Your task to perform on an android device: find which apps use the phone's location Image 0: 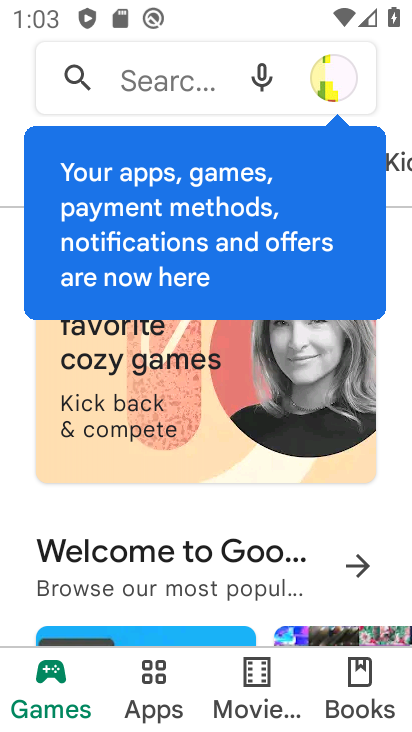
Step 0: press home button
Your task to perform on an android device: find which apps use the phone's location Image 1: 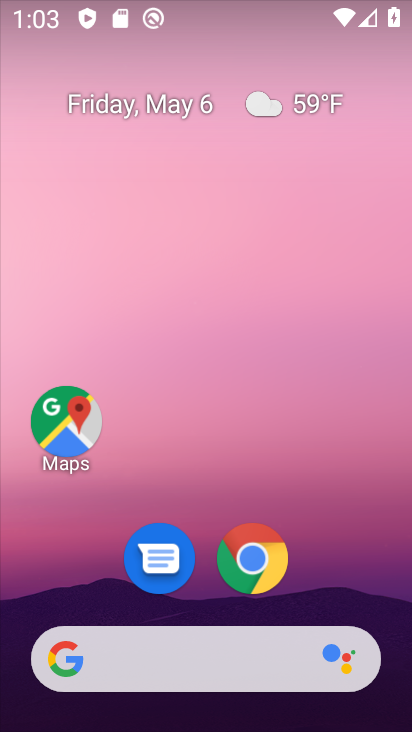
Step 1: drag from (223, 727) to (215, 221)
Your task to perform on an android device: find which apps use the phone's location Image 2: 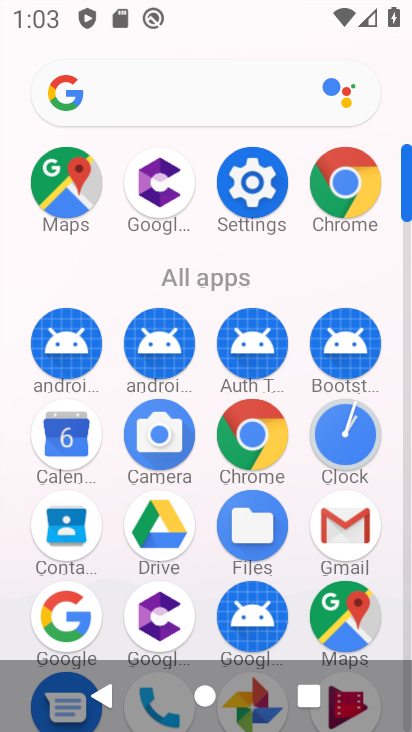
Step 2: click (252, 181)
Your task to perform on an android device: find which apps use the phone's location Image 3: 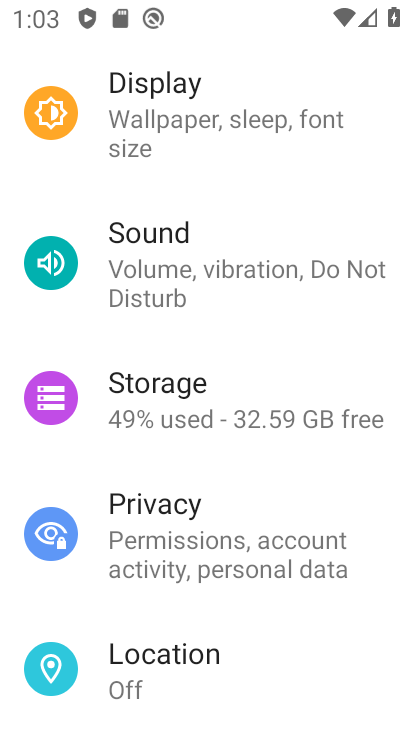
Step 3: click (120, 658)
Your task to perform on an android device: find which apps use the phone's location Image 4: 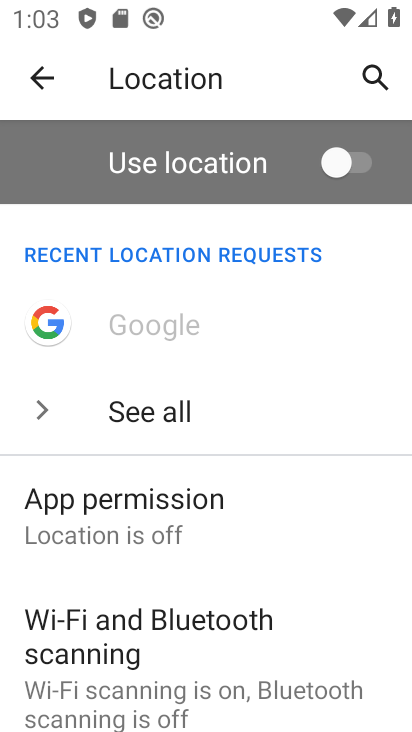
Step 4: click (144, 521)
Your task to perform on an android device: find which apps use the phone's location Image 5: 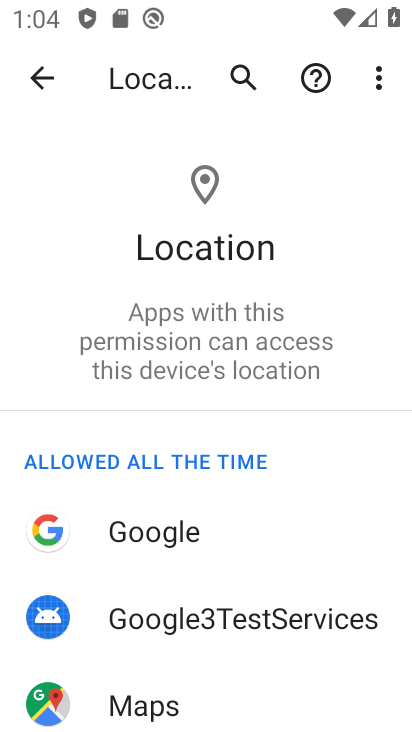
Step 5: task complete